Your task to perform on an android device: What's the weather going to be this weekend? Image 0: 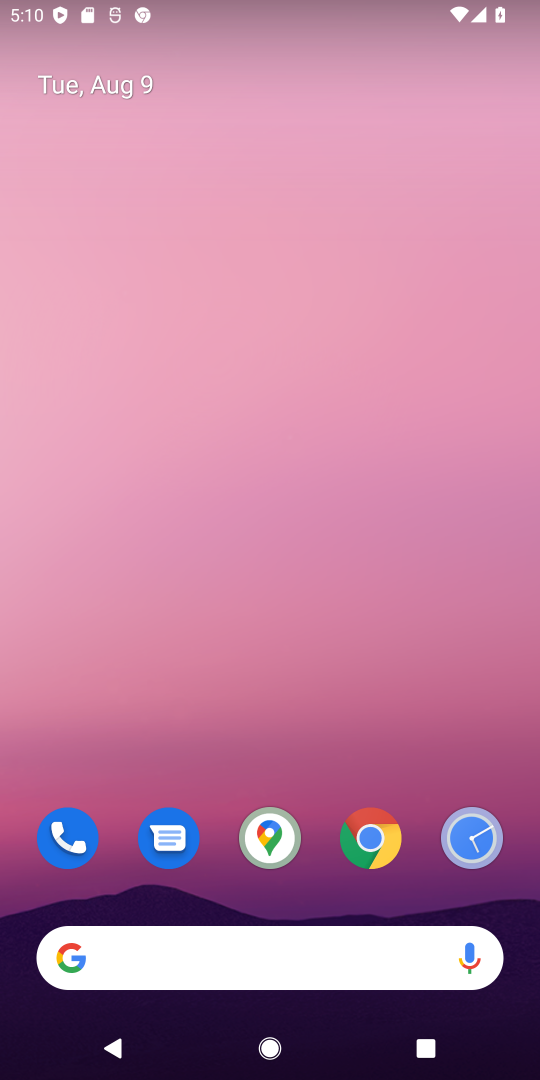
Step 0: drag from (317, 789) to (214, 3)
Your task to perform on an android device: What's the weather going to be this weekend? Image 1: 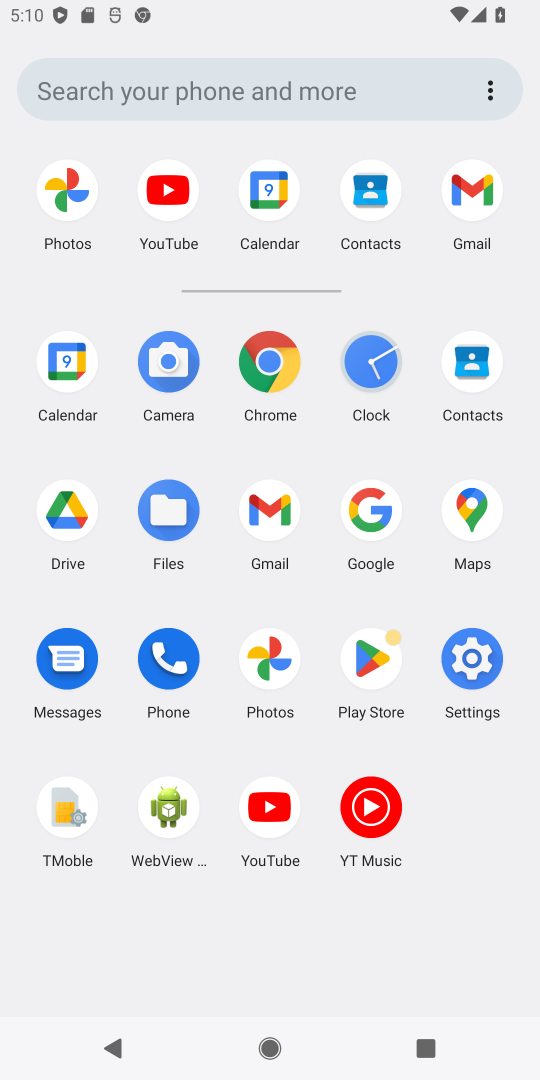
Step 1: click (285, 385)
Your task to perform on an android device: What's the weather going to be this weekend? Image 2: 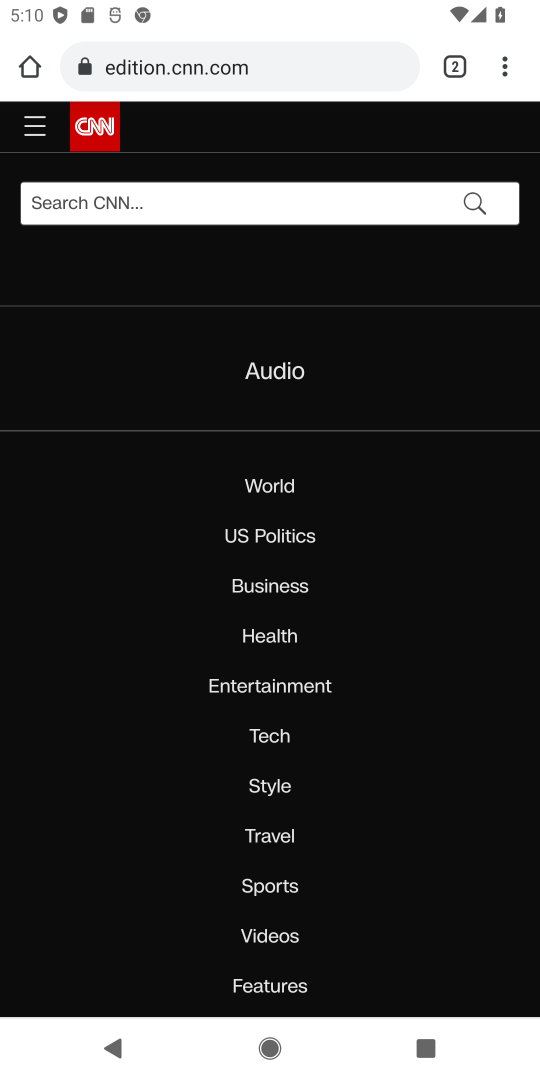
Step 2: click (372, 50)
Your task to perform on an android device: What's the weather going to be this weekend? Image 3: 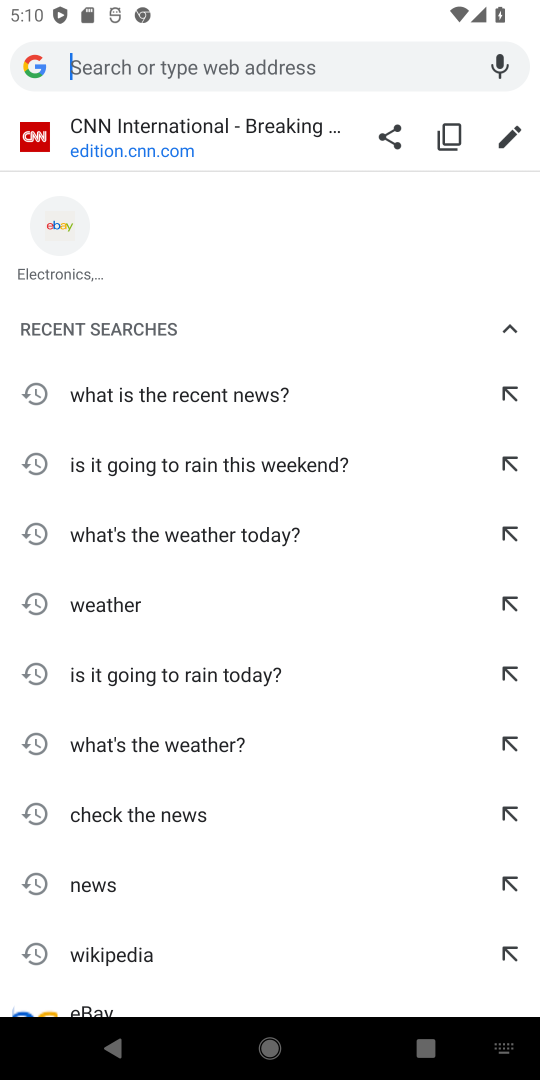
Step 3: type "What's the weather going to be this weekend?"
Your task to perform on an android device: What's the weather going to be this weekend? Image 4: 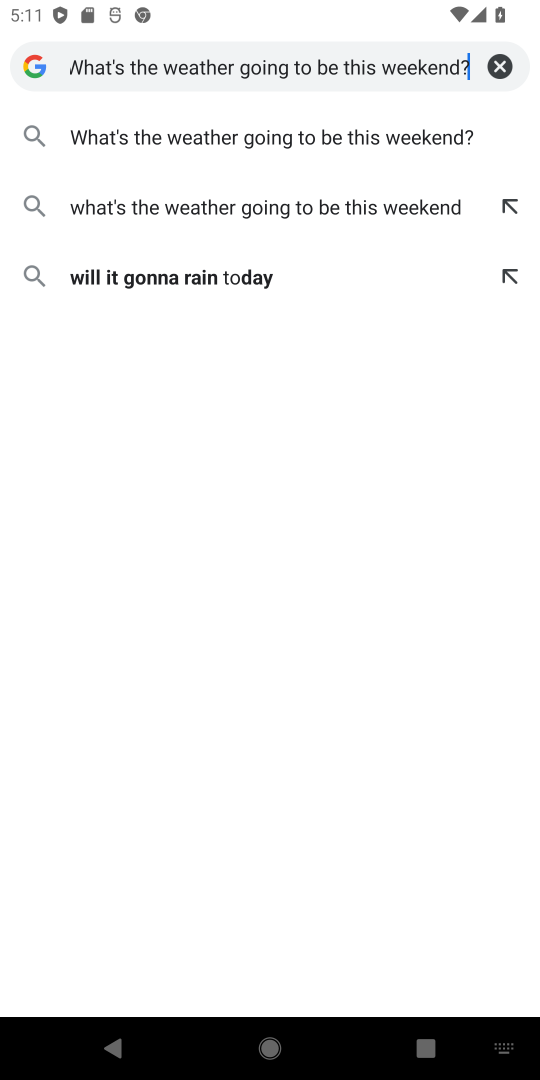
Step 4: click (288, 144)
Your task to perform on an android device: What's the weather going to be this weekend? Image 5: 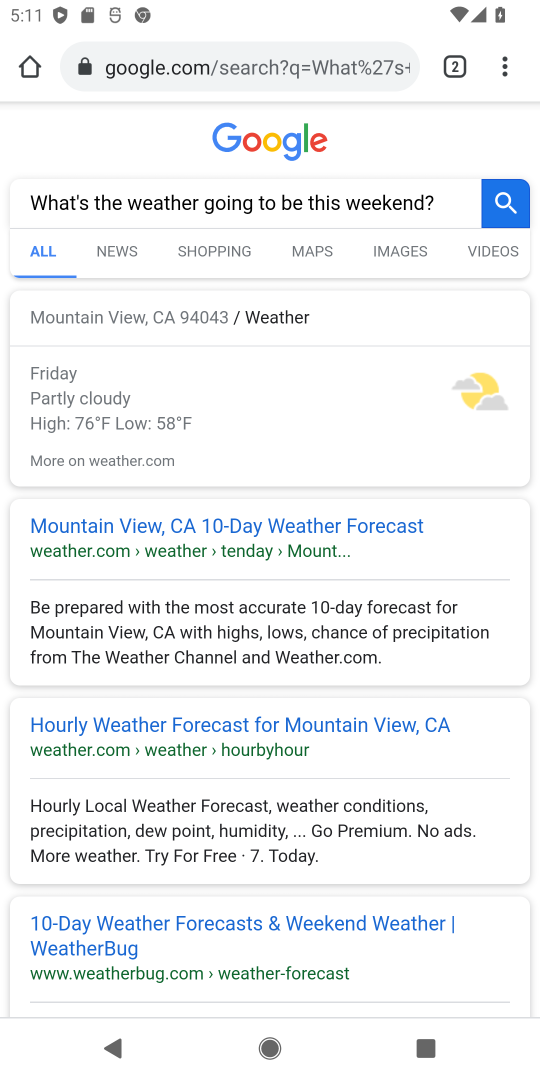
Step 5: click (330, 535)
Your task to perform on an android device: What's the weather going to be this weekend? Image 6: 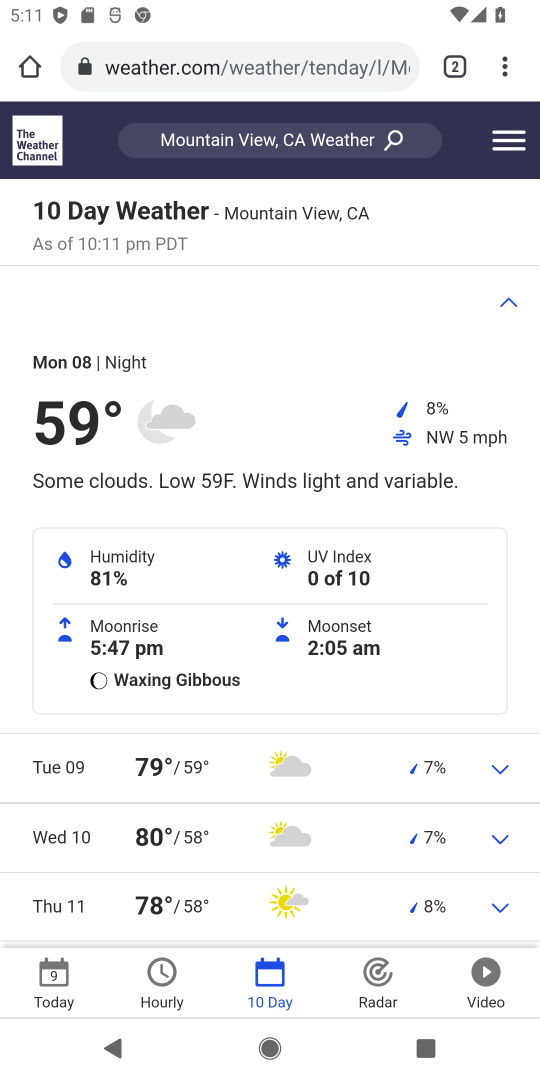
Step 6: click (330, 535)
Your task to perform on an android device: What's the weather going to be this weekend? Image 7: 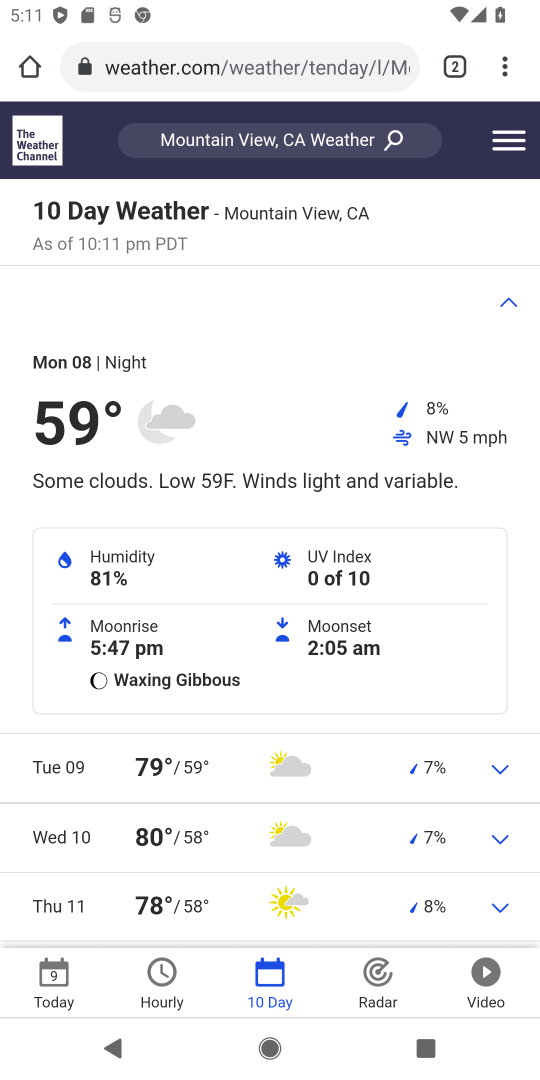
Step 7: task complete